Your task to perform on an android device: Clear the shopping cart on ebay. Search for usb-a to usb-b on ebay, select the first entry, add it to the cart, then select checkout. Image 0: 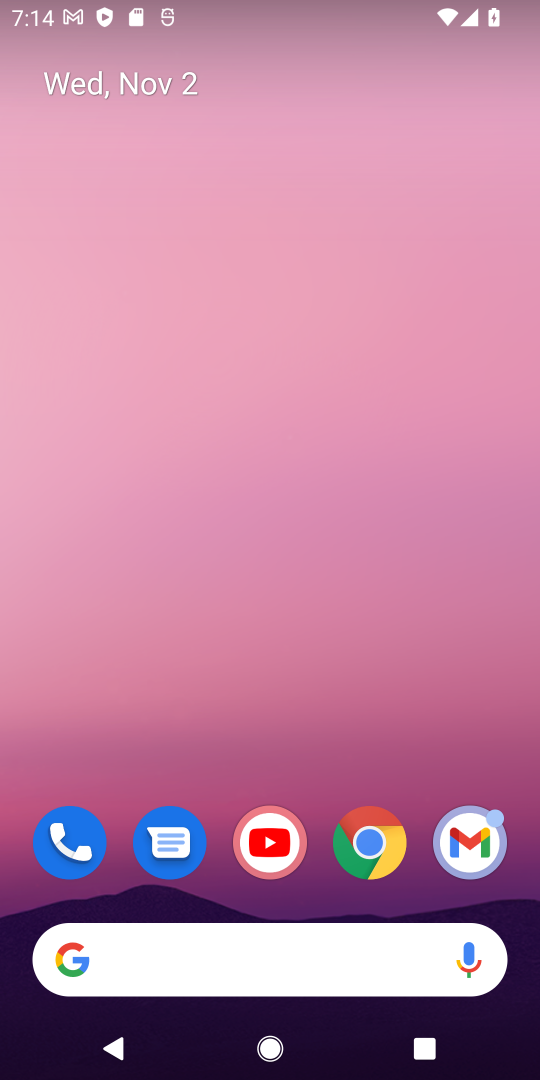
Step 0: click (204, 639)
Your task to perform on an android device: Clear the shopping cart on ebay. Search for usb-a to usb-b on ebay, select the first entry, add it to the cart, then select checkout. Image 1: 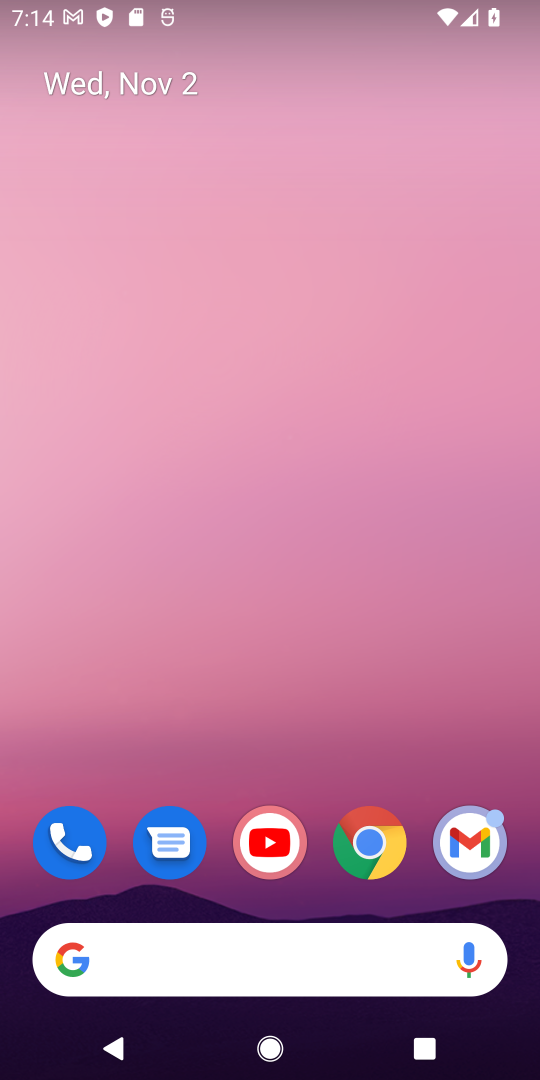
Step 1: drag from (202, 841) to (335, 25)
Your task to perform on an android device: Clear the shopping cart on ebay. Search for usb-a to usb-b on ebay, select the first entry, add it to the cart, then select checkout. Image 2: 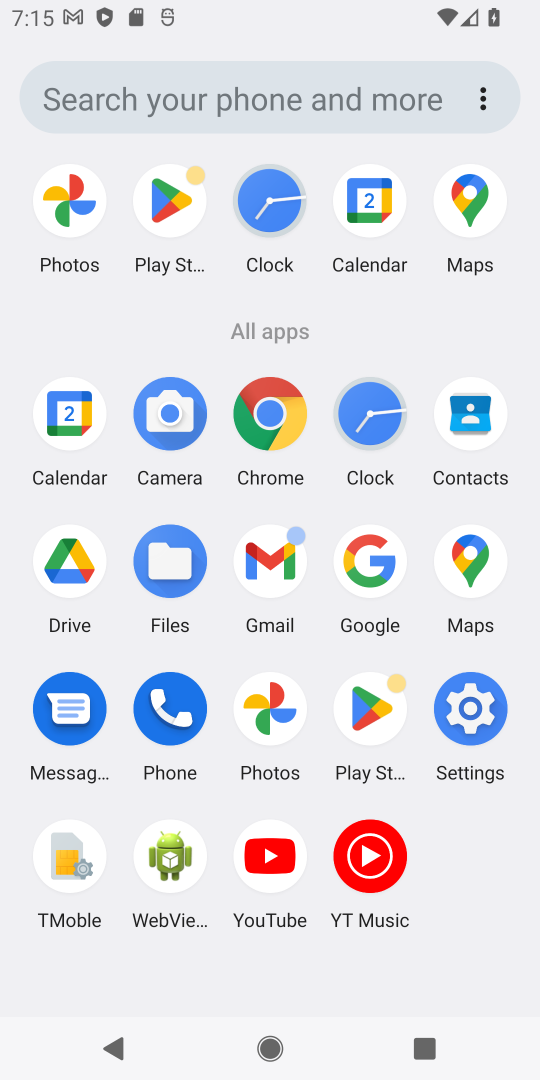
Step 2: click (376, 552)
Your task to perform on an android device: Clear the shopping cart on ebay. Search for usb-a to usb-b on ebay, select the first entry, add it to the cart, then select checkout. Image 3: 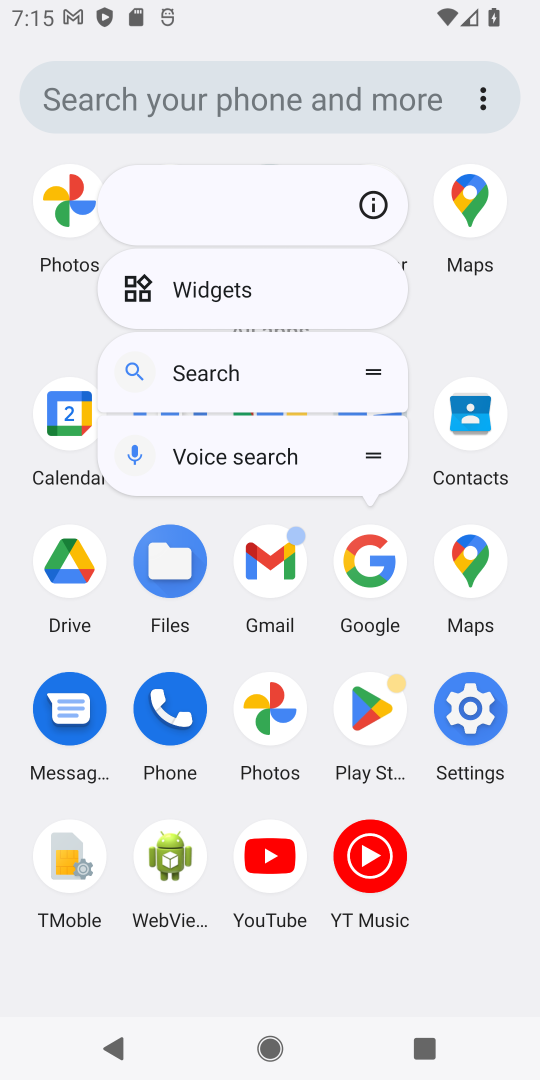
Step 3: click (357, 550)
Your task to perform on an android device: Clear the shopping cart on ebay. Search for usb-a to usb-b on ebay, select the first entry, add it to the cart, then select checkout. Image 4: 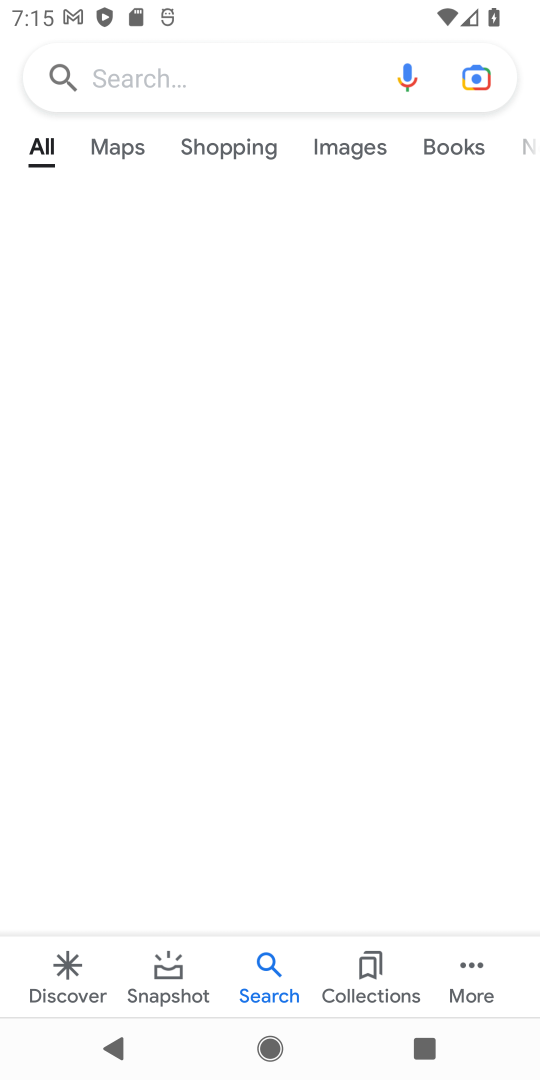
Step 4: click (199, 86)
Your task to perform on an android device: Clear the shopping cart on ebay. Search for usb-a to usb-b on ebay, select the first entry, add it to the cart, then select checkout. Image 5: 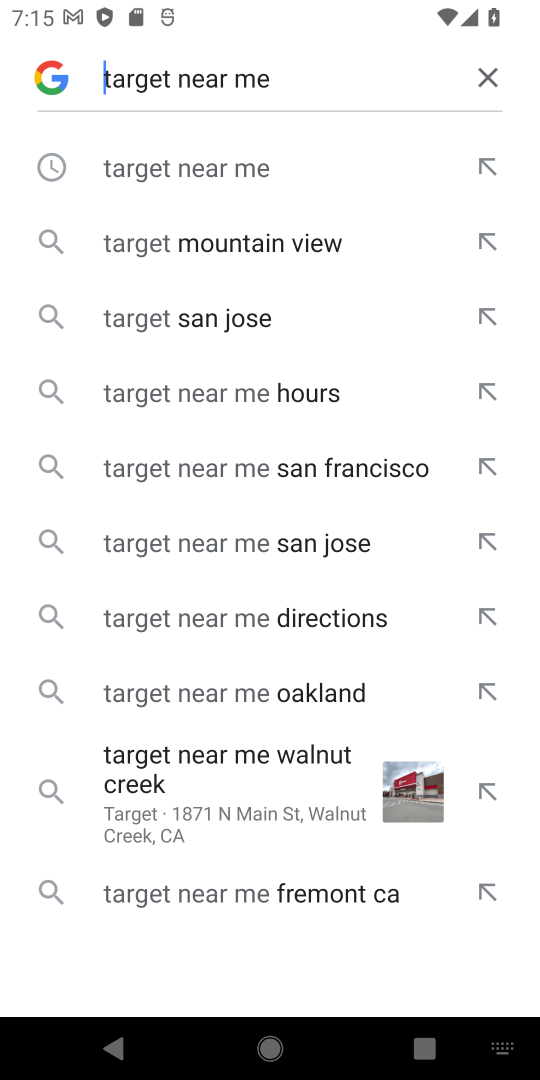
Step 5: click (493, 60)
Your task to perform on an android device: Clear the shopping cart on ebay. Search for usb-a to usb-b on ebay, select the first entry, add it to the cart, then select checkout. Image 6: 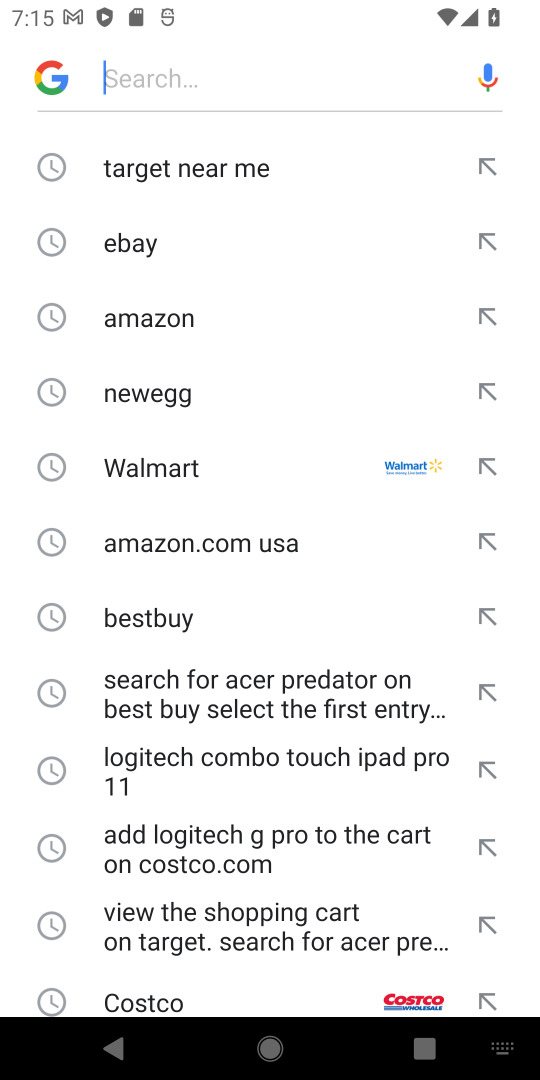
Step 6: click (174, 72)
Your task to perform on an android device: Clear the shopping cart on ebay. Search for usb-a to usb-b on ebay, select the first entry, add it to the cart, then select checkout. Image 7: 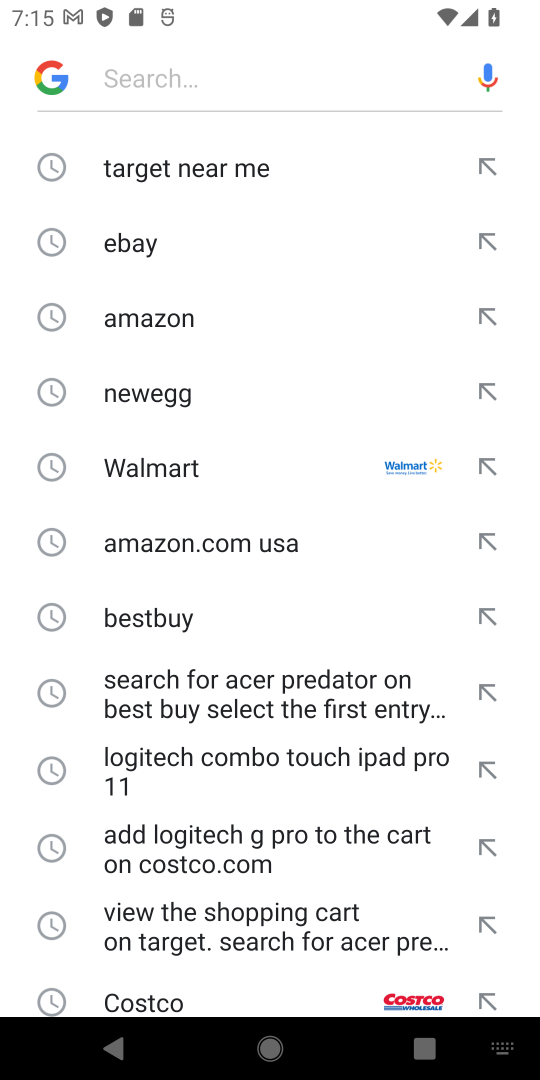
Step 7: type "ebay "
Your task to perform on an android device: Clear the shopping cart on ebay. Search for usb-a to usb-b on ebay, select the first entry, add it to the cart, then select checkout. Image 8: 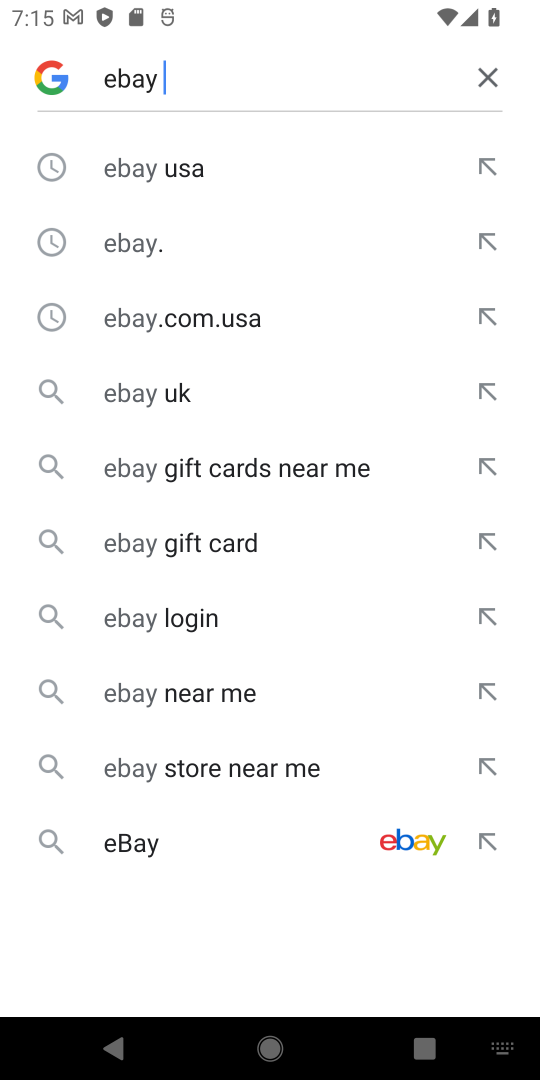
Step 8: click (172, 176)
Your task to perform on an android device: Clear the shopping cart on ebay. Search for usb-a to usb-b on ebay, select the first entry, add it to the cart, then select checkout. Image 9: 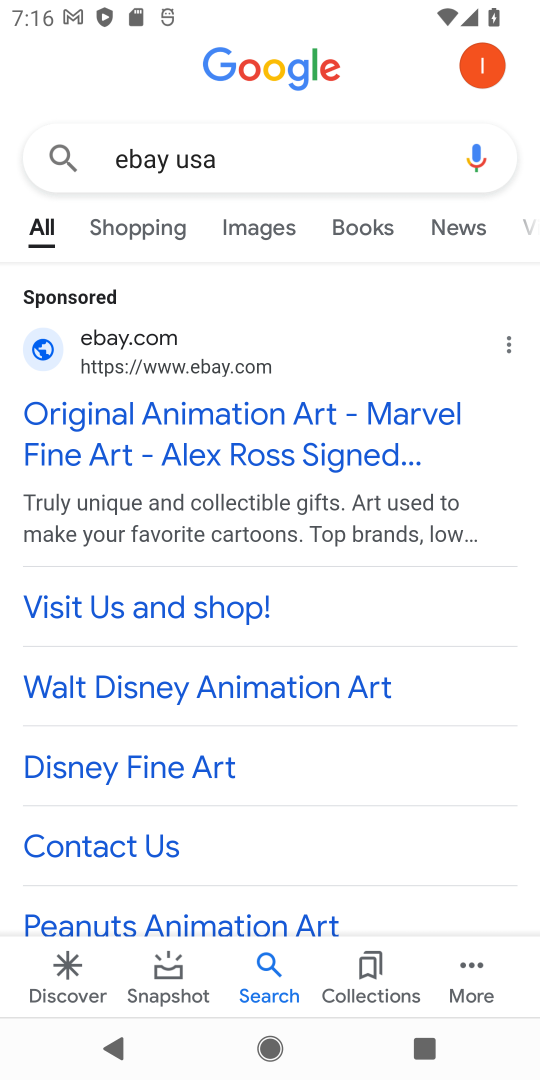
Step 9: drag from (181, 822) to (289, 329)
Your task to perform on an android device: Clear the shopping cart on ebay. Search for usb-a to usb-b on ebay, select the first entry, add it to the cart, then select checkout. Image 10: 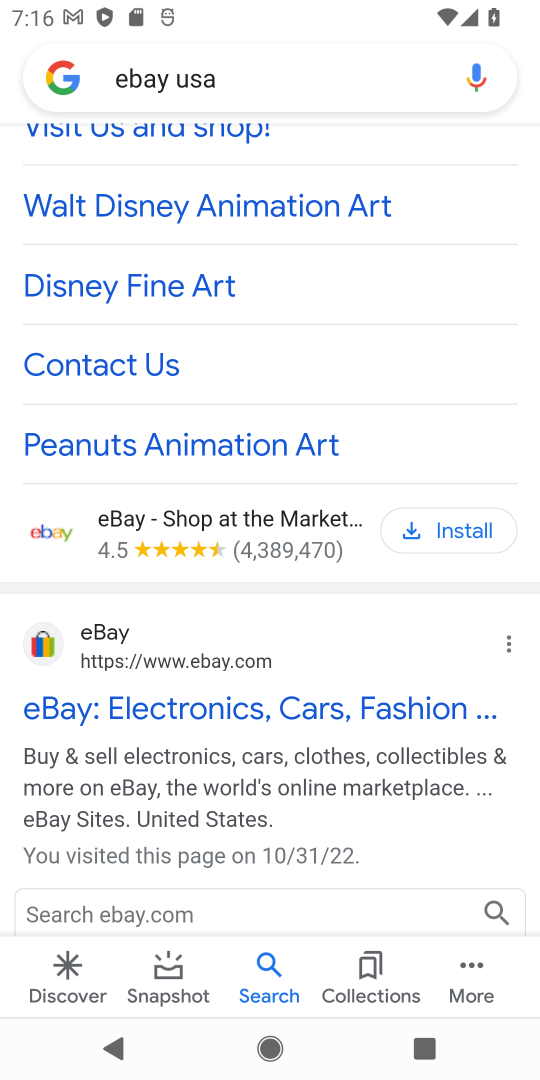
Step 10: click (40, 641)
Your task to perform on an android device: Clear the shopping cart on ebay. Search for usb-a to usb-b on ebay, select the first entry, add it to the cart, then select checkout. Image 11: 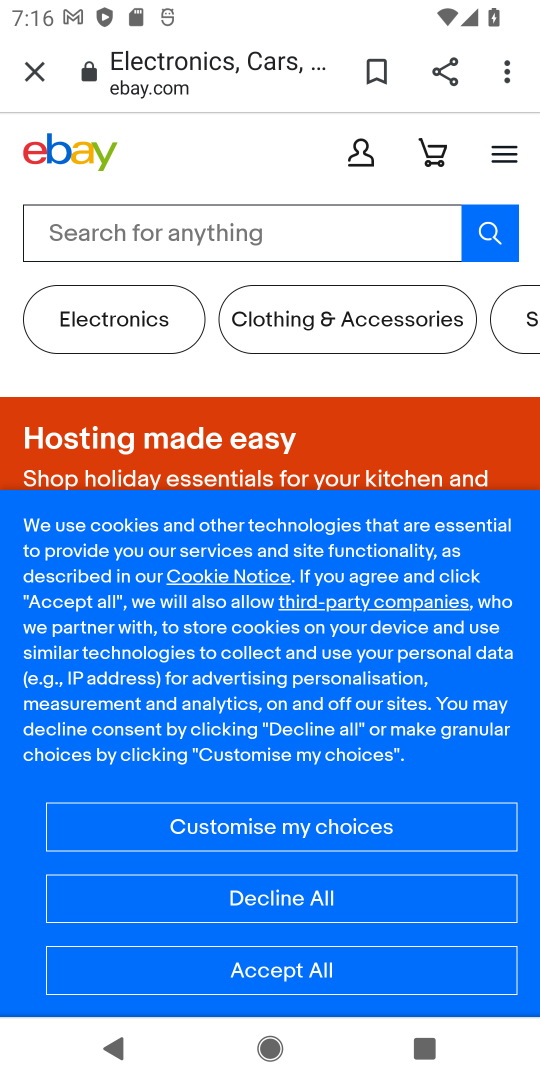
Step 11: click (271, 975)
Your task to perform on an android device: Clear the shopping cart on ebay. Search for usb-a to usb-b on ebay, select the first entry, add it to the cart, then select checkout. Image 12: 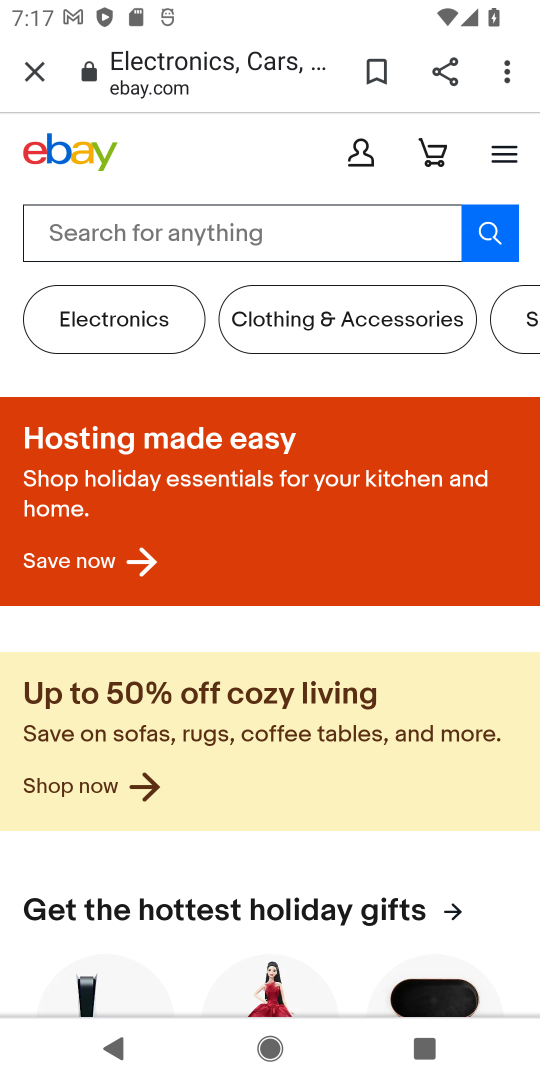
Step 12: click (159, 220)
Your task to perform on an android device: Clear the shopping cart on ebay. Search for usb-a to usb-b on ebay, select the first entry, add it to the cart, then select checkout. Image 13: 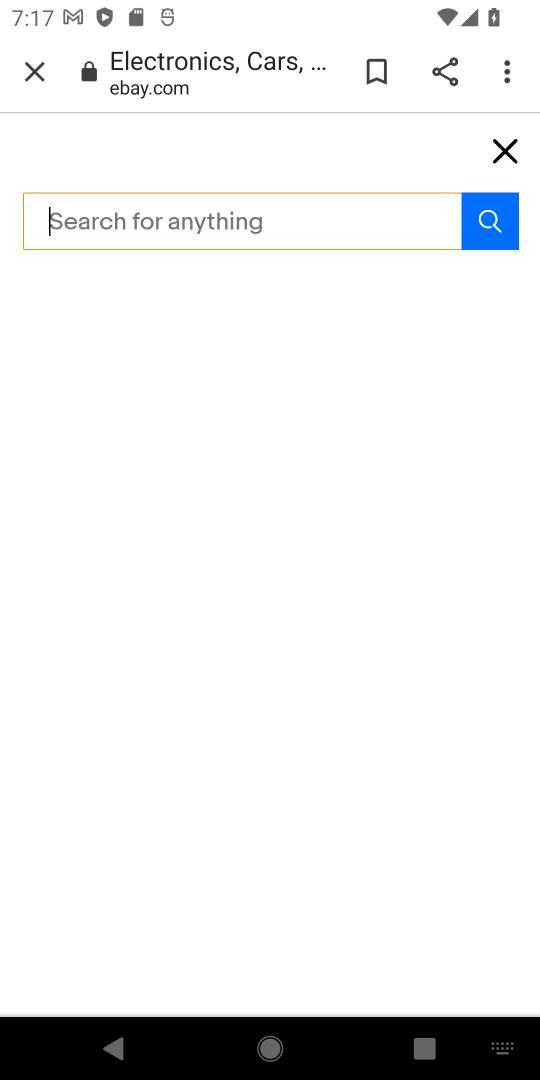
Step 13: type "usb-a to usb-b  "
Your task to perform on an android device: Clear the shopping cart on ebay. Search for usb-a to usb-b on ebay, select the first entry, add it to the cart, then select checkout. Image 14: 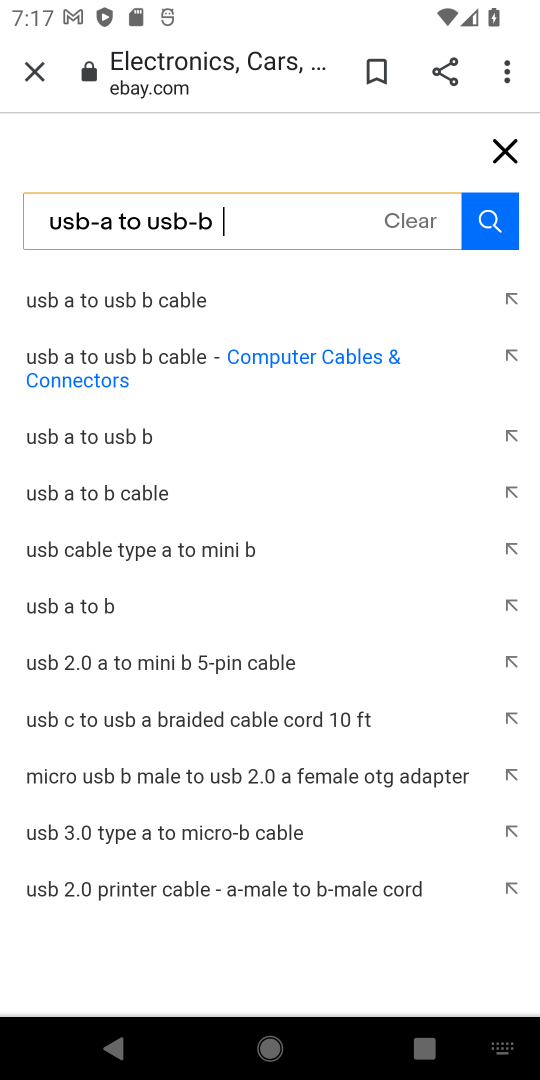
Step 14: click (75, 308)
Your task to perform on an android device: Clear the shopping cart on ebay. Search for usb-a to usb-b on ebay, select the first entry, add it to the cart, then select checkout. Image 15: 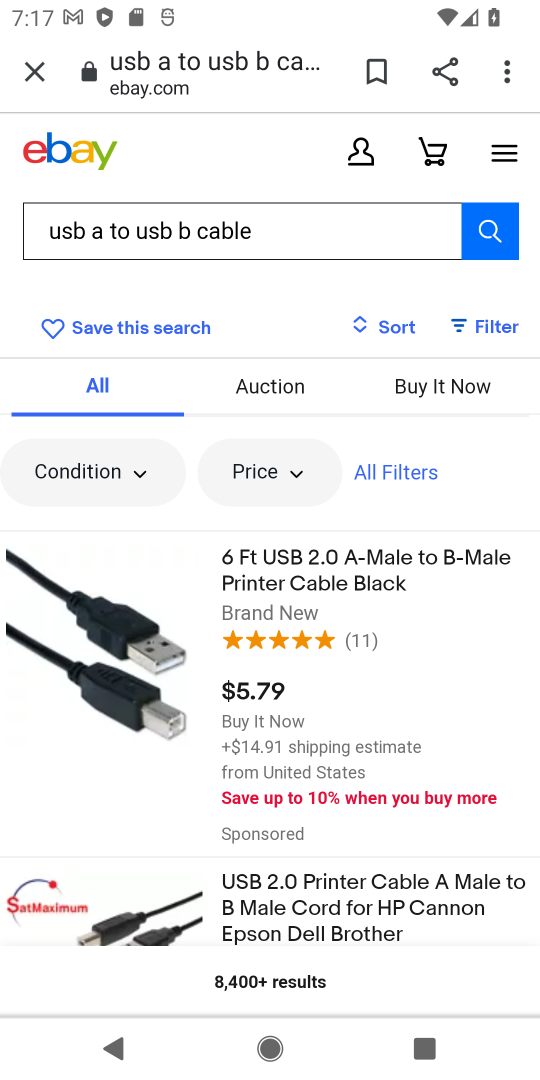
Step 15: click (310, 604)
Your task to perform on an android device: Clear the shopping cart on ebay. Search for usb-a to usb-b on ebay, select the first entry, add it to the cart, then select checkout. Image 16: 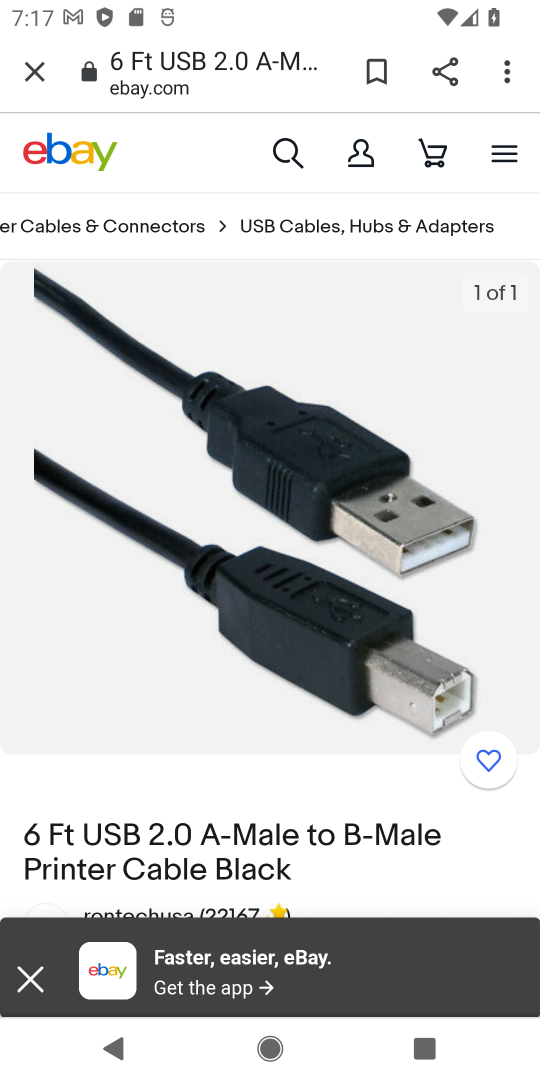
Step 16: drag from (232, 888) to (291, 494)
Your task to perform on an android device: Clear the shopping cart on ebay. Search for usb-a to usb-b on ebay, select the first entry, add it to the cart, then select checkout. Image 17: 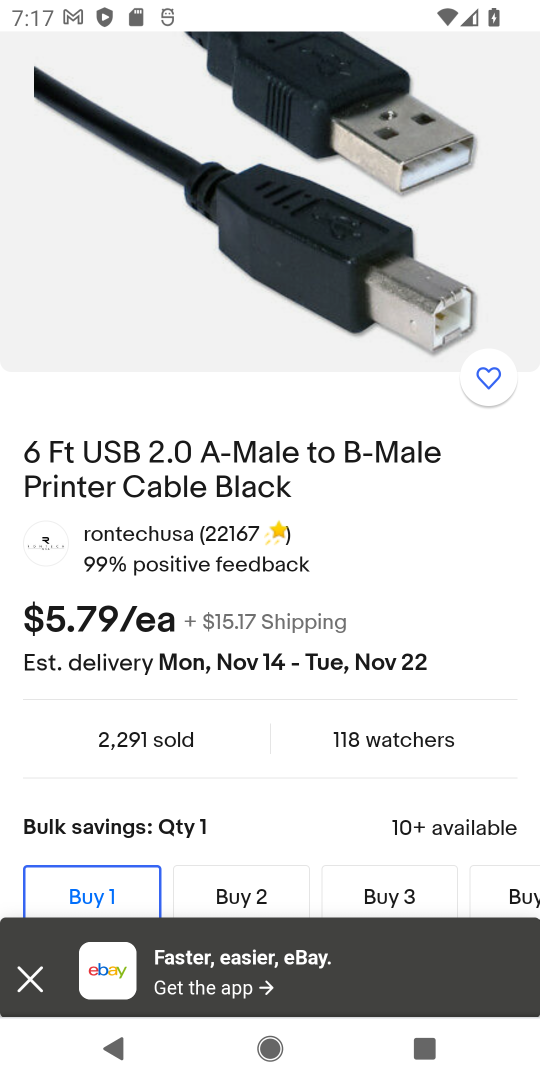
Step 17: drag from (110, 749) to (188, 515)
Your task to perform on an android device: Clear the shopping cart on ebay. Search for usb-a to usb-b on ebay, select the first entry, add it to the cart, then select checkout. Image 18: 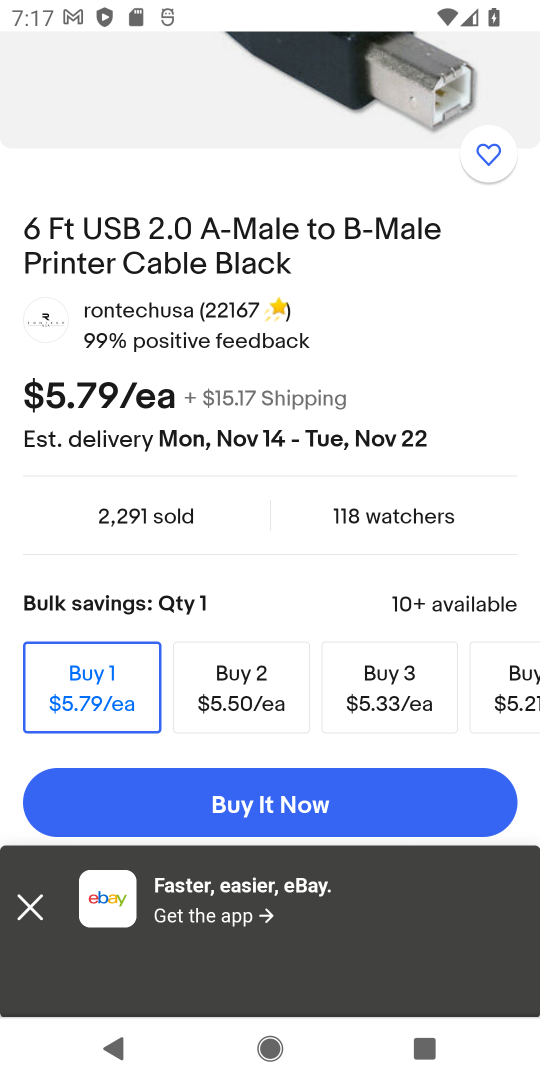
Step 18: click (15, 915)
Your task to perform on an android device: Clear the shopping cart on ebay. Search for usb-a to usb-b on ebay, select the first entry, add it to the cart, then select checkout. Image 19: 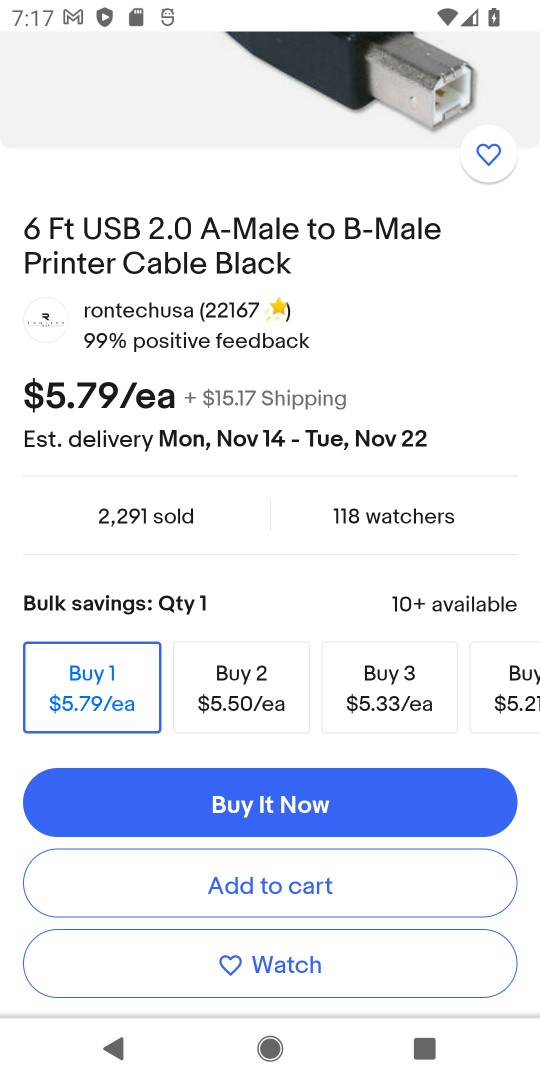
Step 19: click (175, 886)
Your task to perform on an android device: Clear the shopping cart on ebay. Search for usb-a to usb-b on ebay, select the first entry, add it to the cart, then select checkout. Image 20: 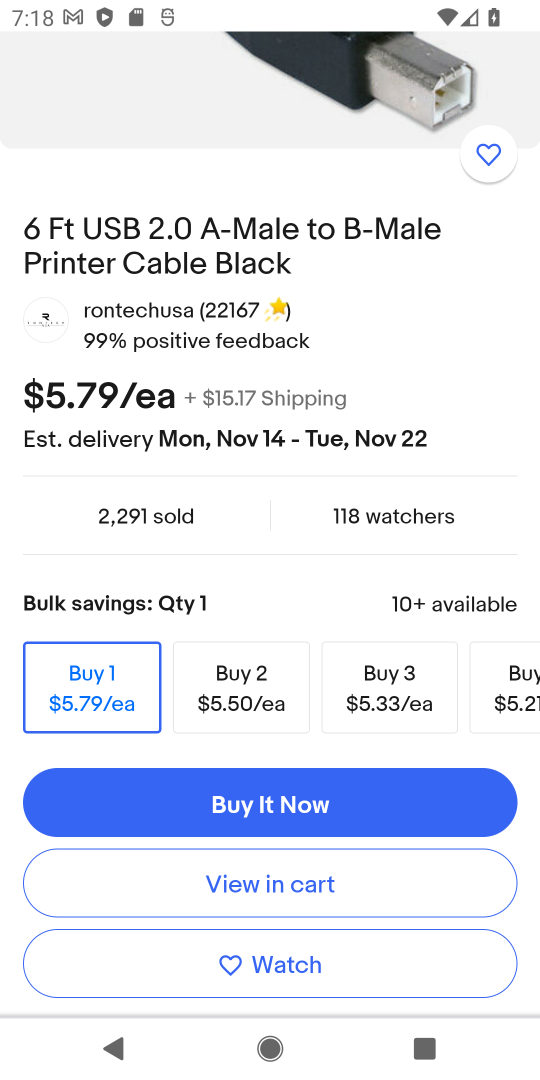
Step 20: click (319, 876)
Your task to perform on an android device: Clear the shopping cart on ebay. Search for usb-a to usb-b on ebay, select the first entry, add it to the cart, then select checkout. Image 21: 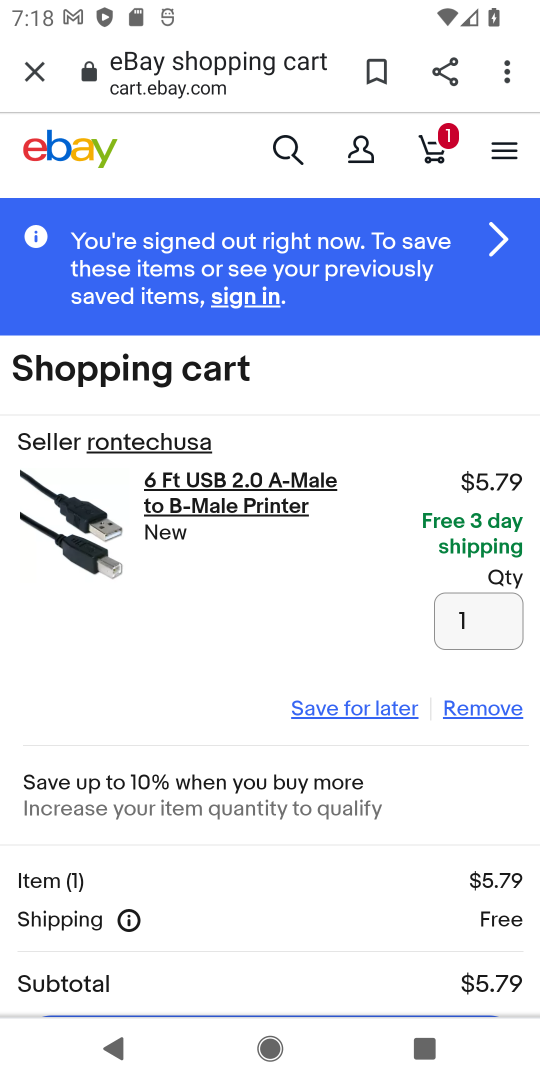
Step 21: task complete